Your task to perform on an android device: set the timer Image 0: 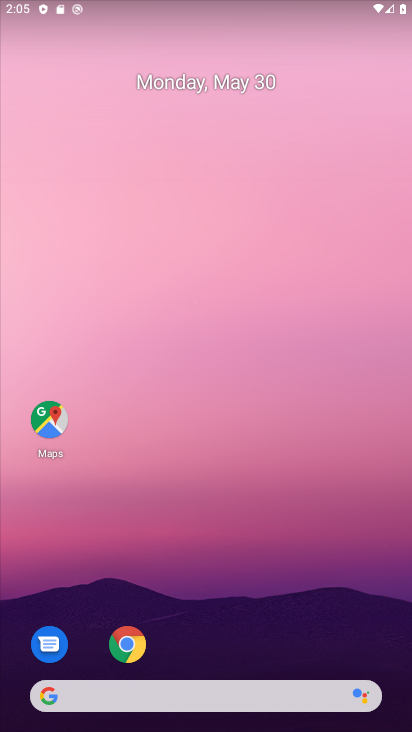
Step 0: drag from (237, 625) to (151, 149)
Your task to perform on an android device: set the timer Image 1: 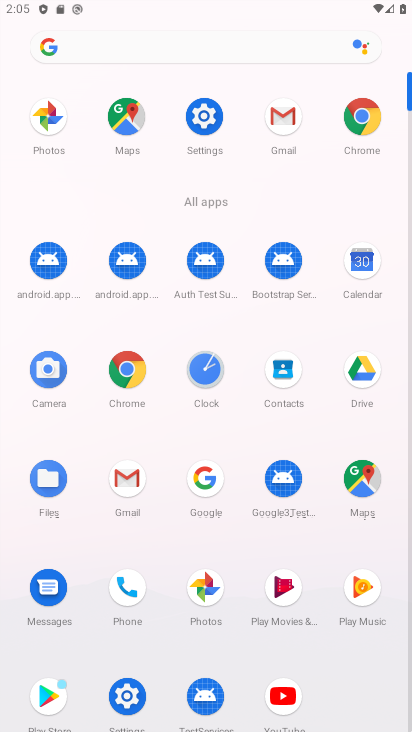
Step 1: click (218, 370)
Your task to perform on an android device: set the timer Image 2: 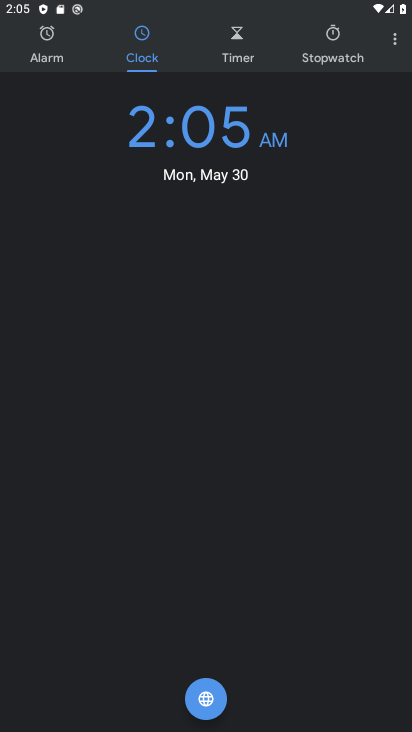
Step 2: click (232, 35)
Your task to perform on an android device: set the timer Image 3: 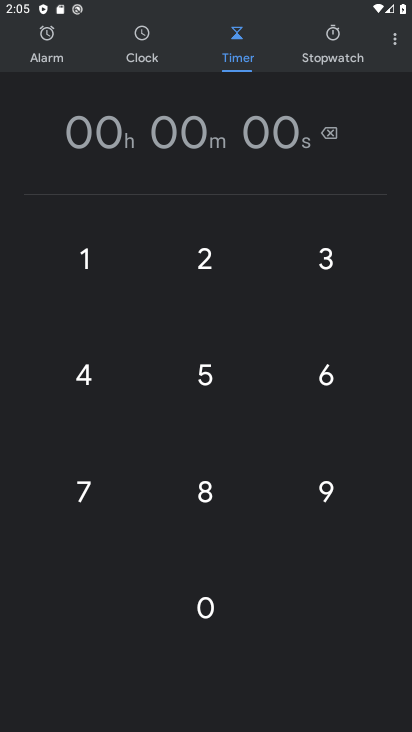
Step 3: click (95, 384)
Your task to perform on an android device: set the timer Image 4: 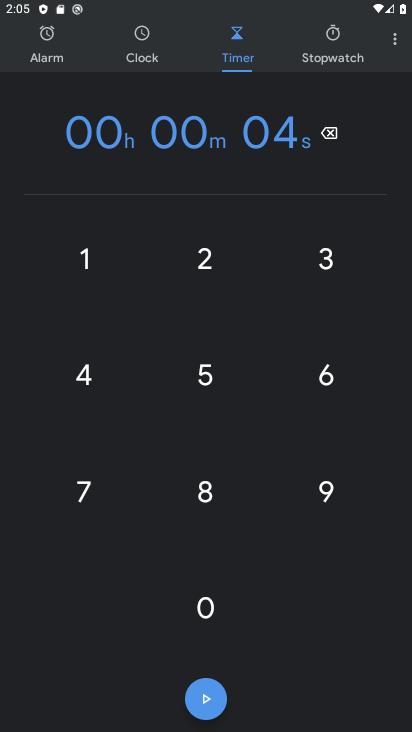
Step 4: click (193, 251)
Your task to perform on an android device: set the timer Image 5: 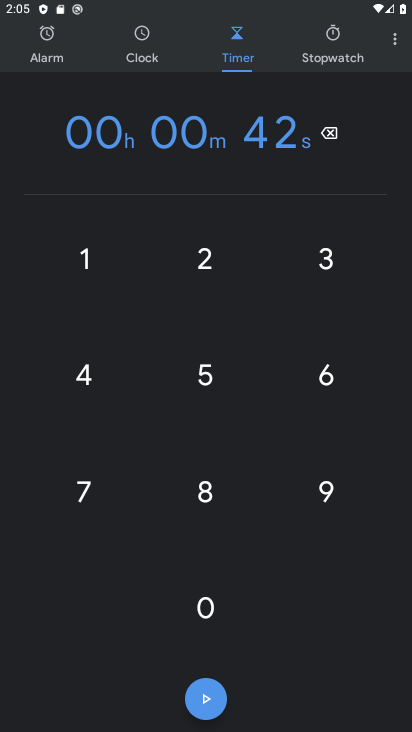
Step 5: click (324, 359)
Your task to perform on an android device: set the timer Image 6: 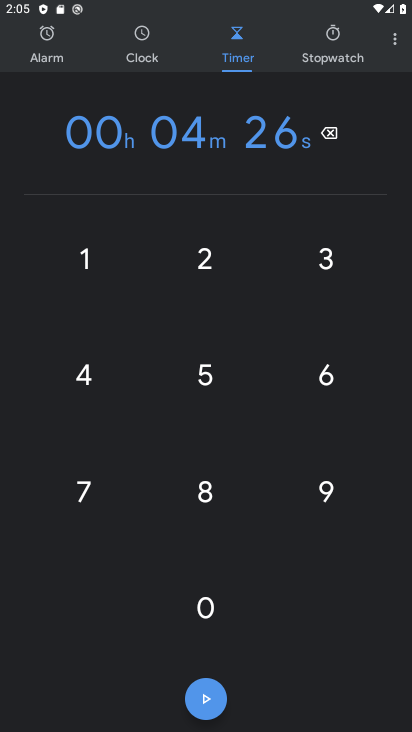
Step 6: click (197, 391)
Your task to perform on an android device: set the timer Image 7: 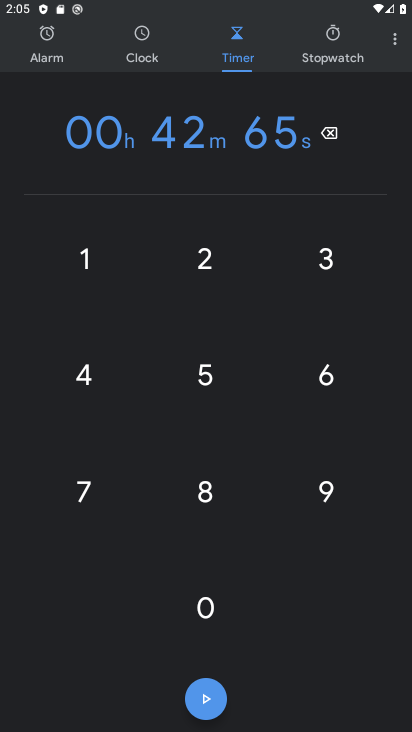
Step 7: click (222, 262)
Your task to perform on an android device: set the timer Image 8: 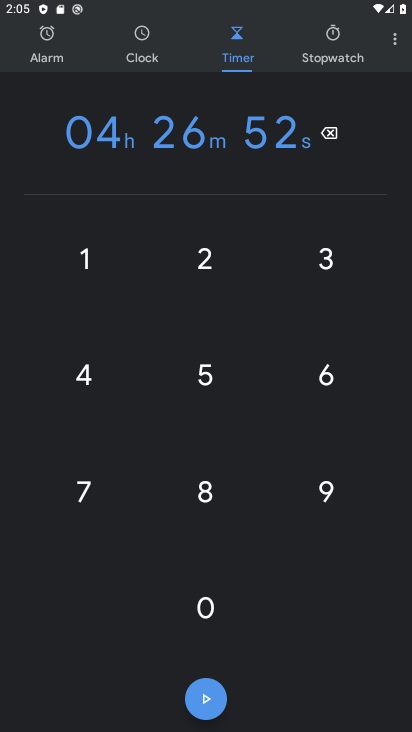
Step 8: click (211, 701)
Your task to perform on an android device: set the timer Image 9: 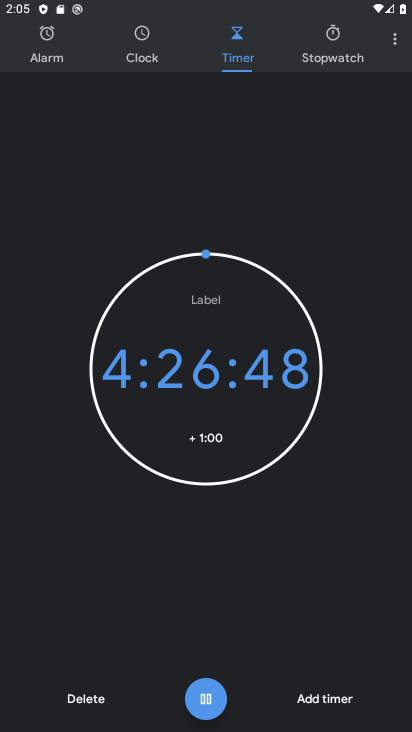
Step 9: task complete